Your task to perform on an android device: Open Wikipedia Image 0: 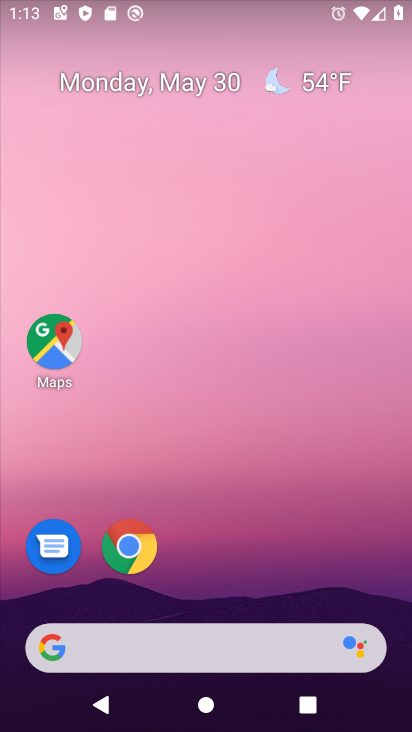
Step 0: press home button
Your task to perform on an android device: Open Wikipedia Image 1: 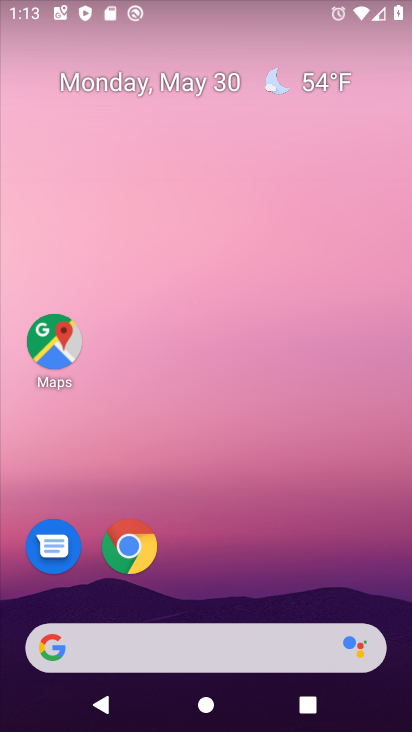
Step 1: click (46, 649)
Your task to perform on an android device: Open Wikipedia Image 2: 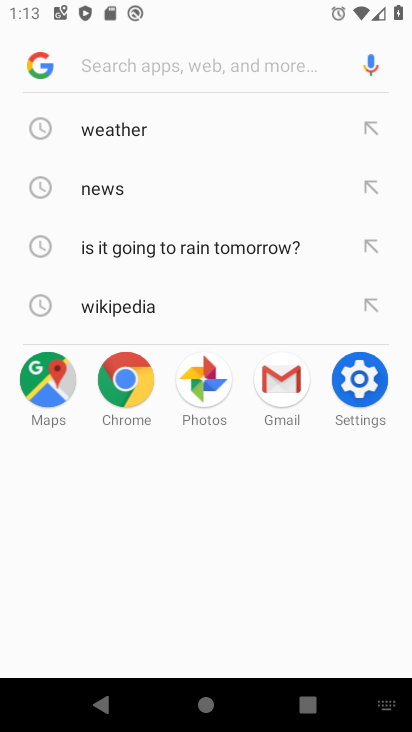
Step 2: click (135, 300)
Your task to perform on an android device: Open Wikipedia Image 3: 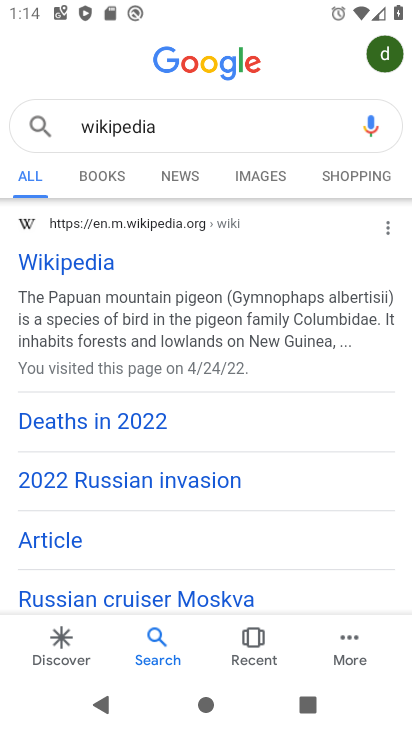
Step 3: click (64, 263)
Your task to perform on an android device: Open Wikipedia Image 4: 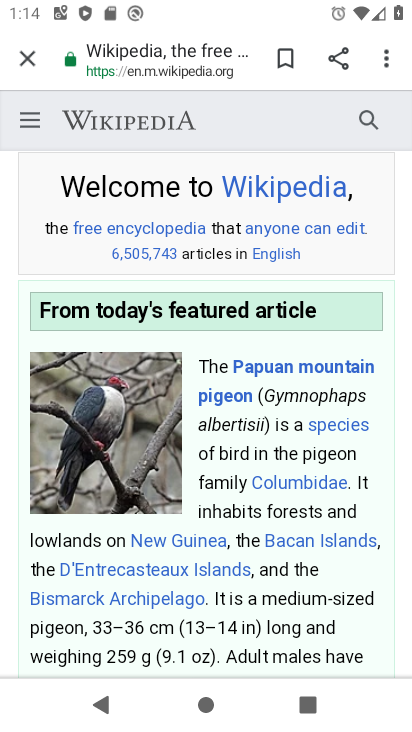
Step 4: task complete